Your task to perform on an android device: What's a good restaurant in San Jose? Image 0: 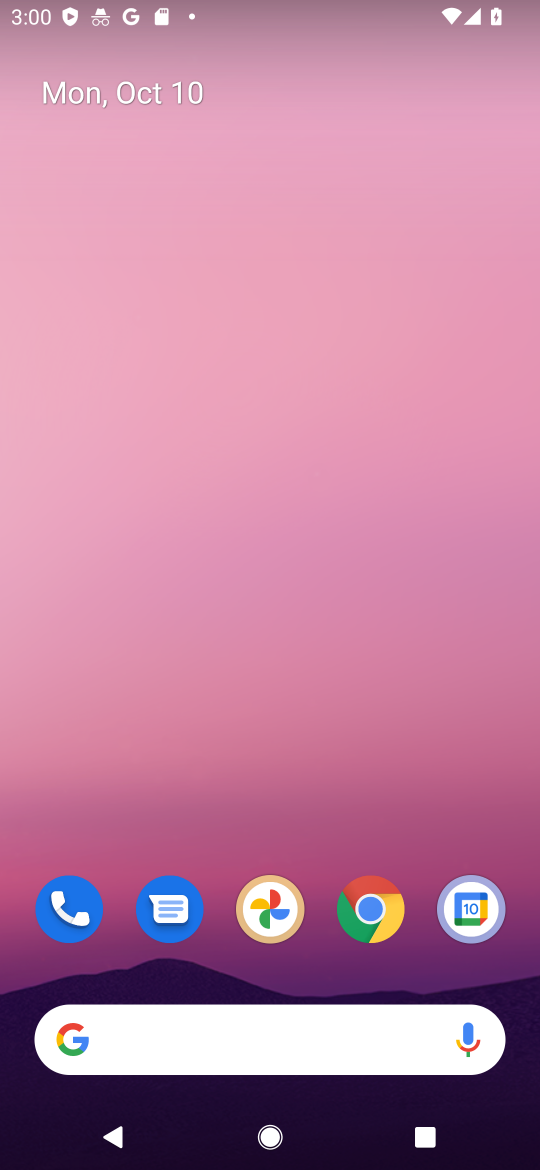
Step 0: click (369, 911)
Your task to perform on an android device: What's a good restaurant in San Jose? Image 1: 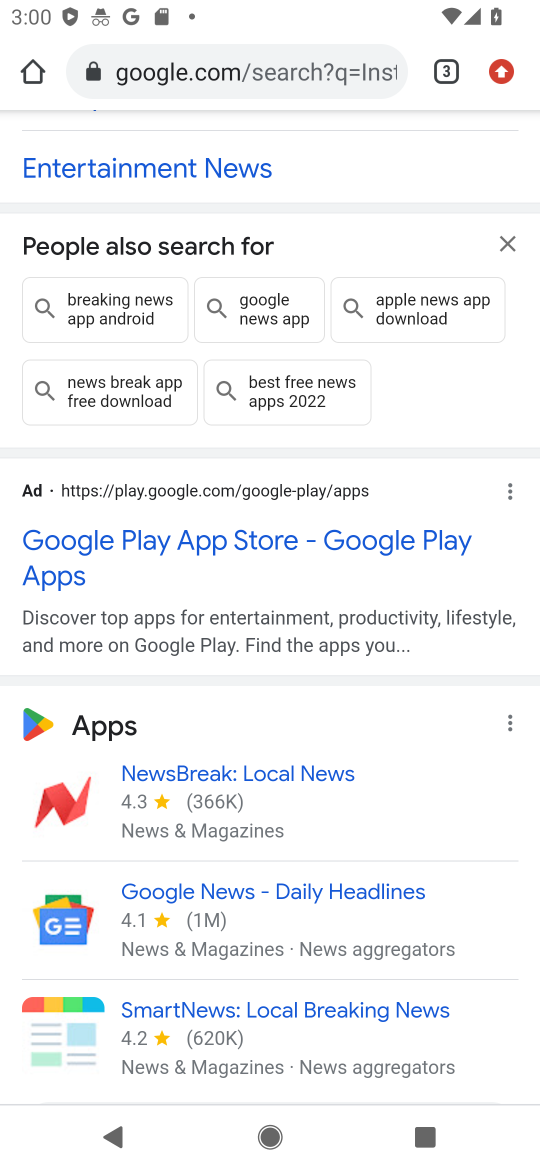
Step 1: click (284, 48)
Your task to perform on an android device: What's a good restaurant in San Jose? Image 2: 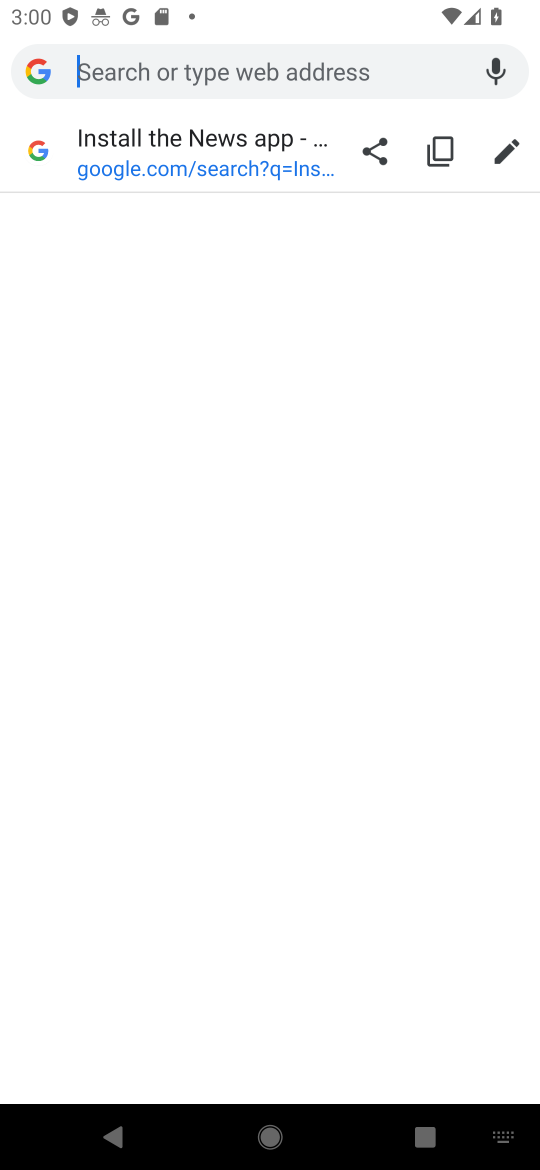
Step 2: type "good restaurant in San Jose?"
Your task to perform on an android device: What's a good restaurant in San Jose? Image 3: 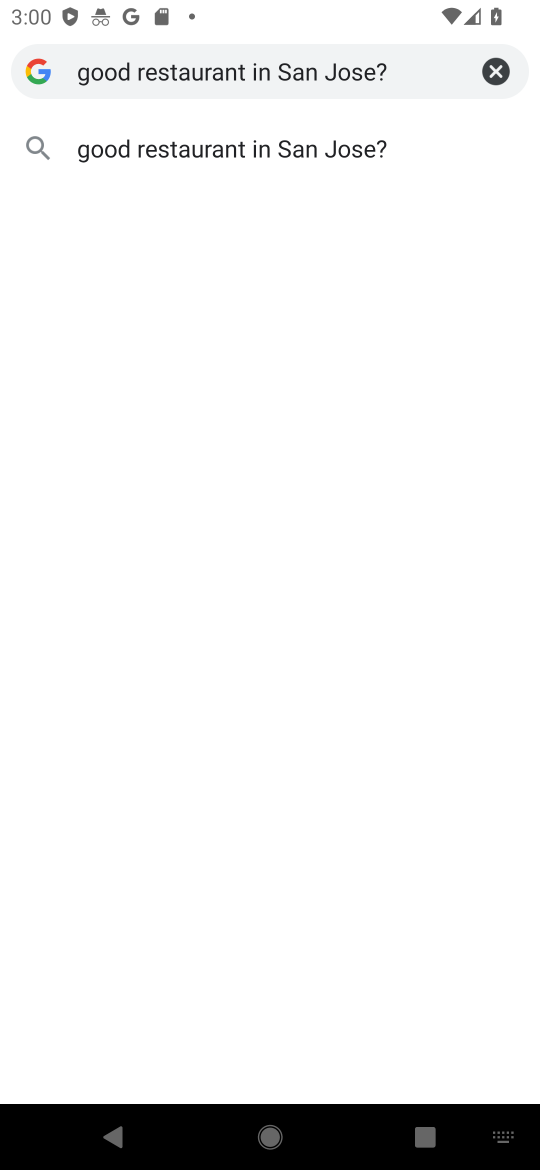
Step 3: click (200, 150)
Your task to perform on an android device: What's a good restaurant in San Jose? Image 4: 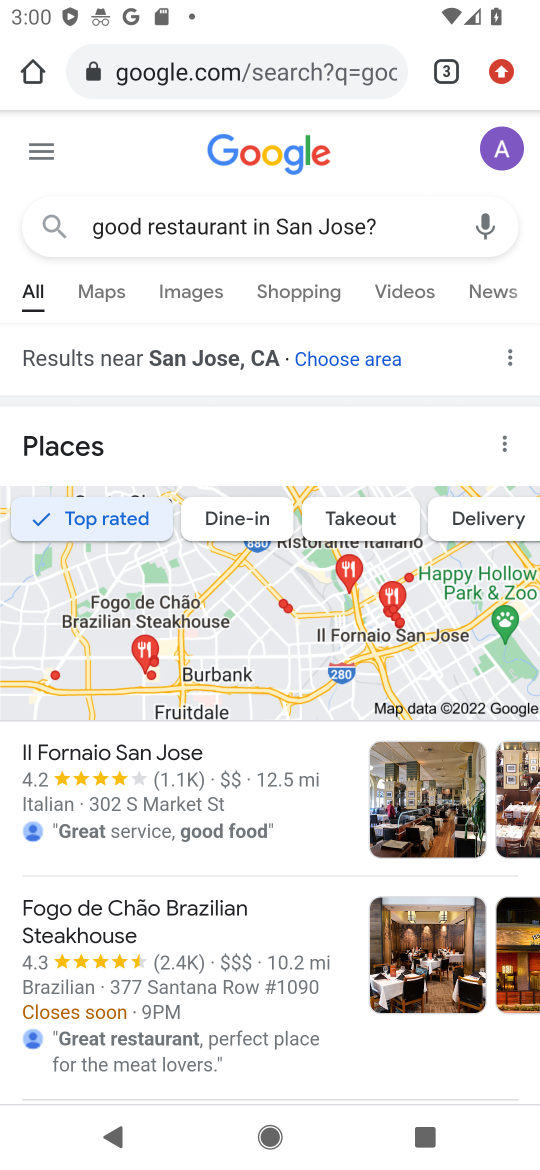
Step 4: drag from (209, 420) to (234, 95)
Your task to perform on an android device: What's a good restaurant in San Jose? Image 5: 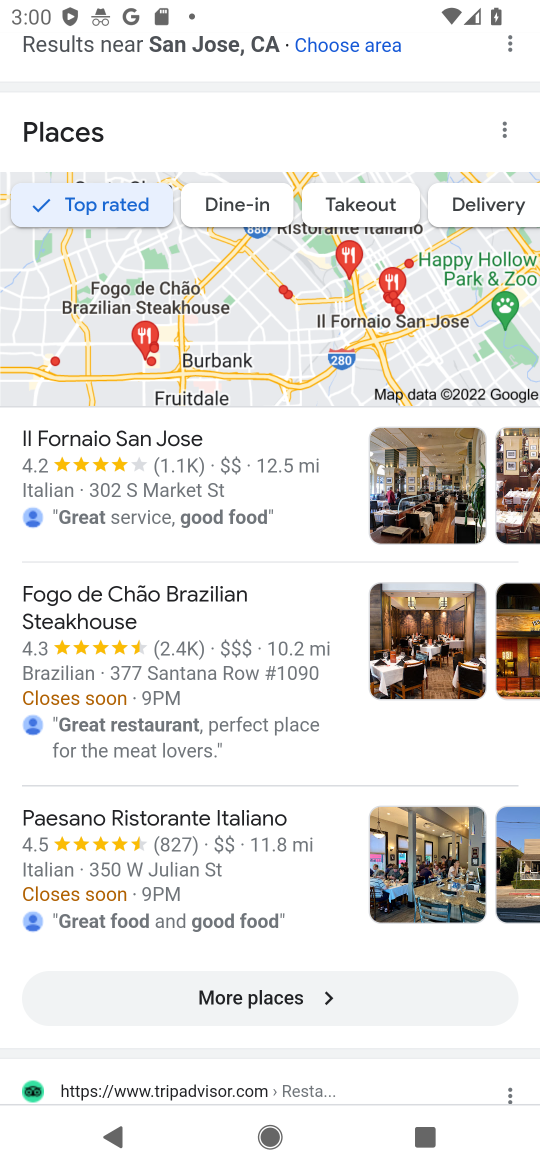
Step 5: drag from (207, 881) to (221, 297)
Your task to perform on an android device: What's a good restaurant in San Jose? Image 6: 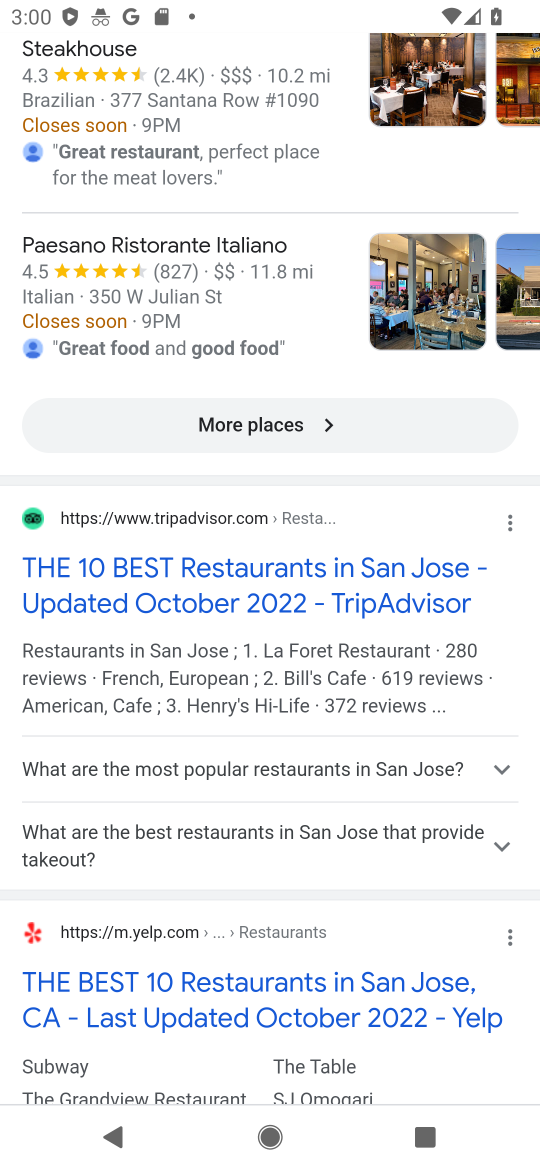
Step 6: click (176, 577)
Your task to perform on an android device: What's a good restaurant in San Jose? Image 7: 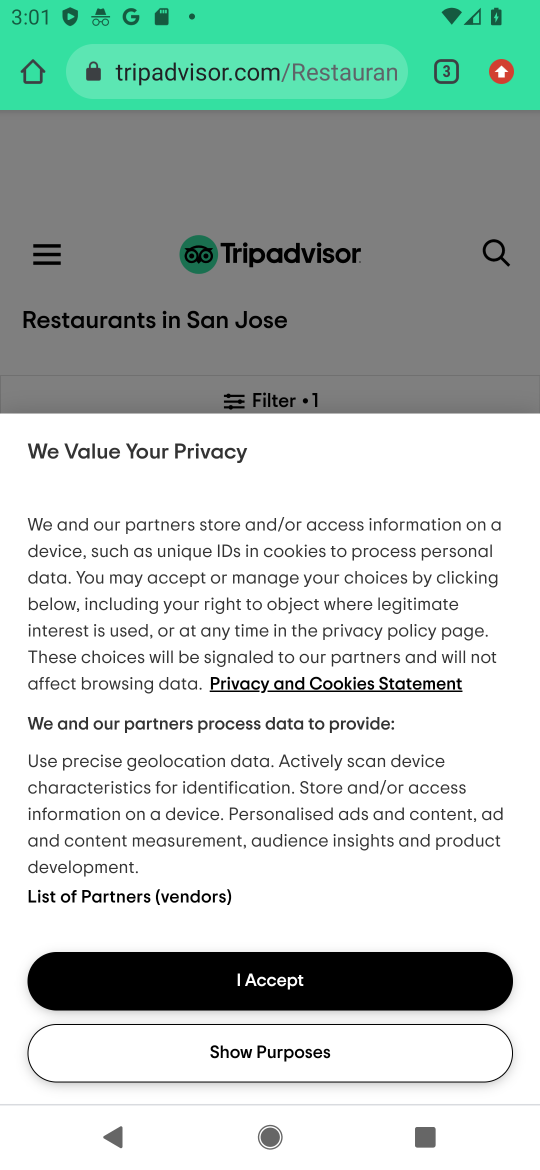
Step 7: click (253, 971)
Your task to perform on an android device: What's a good restaurant in San Jose? Image 8: 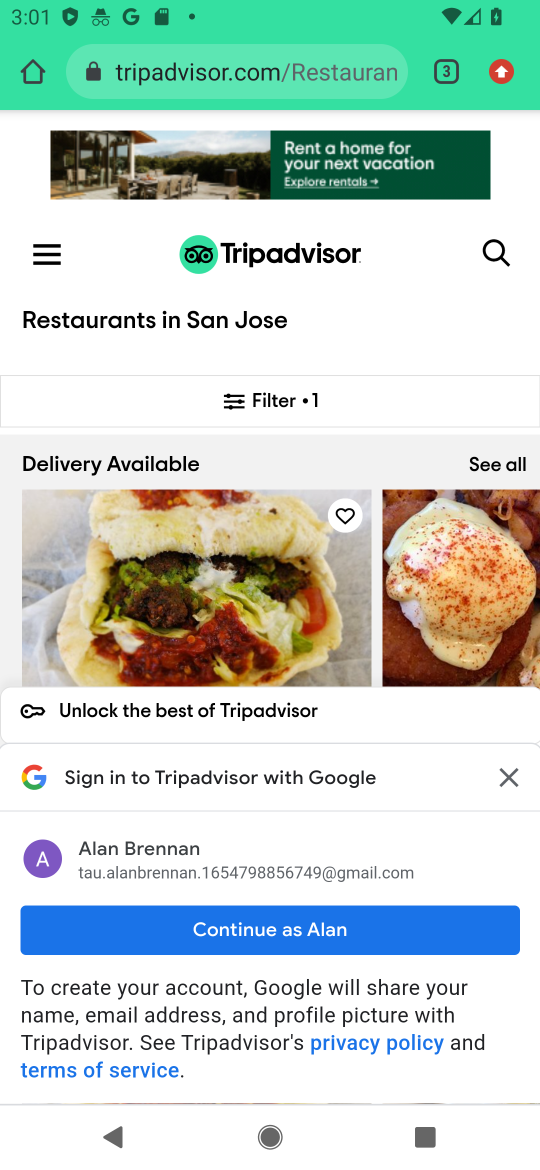
Step 8: click (250, 933)
Your task to perform on an android device: What's a good restaurant in San Jose? Image 9: 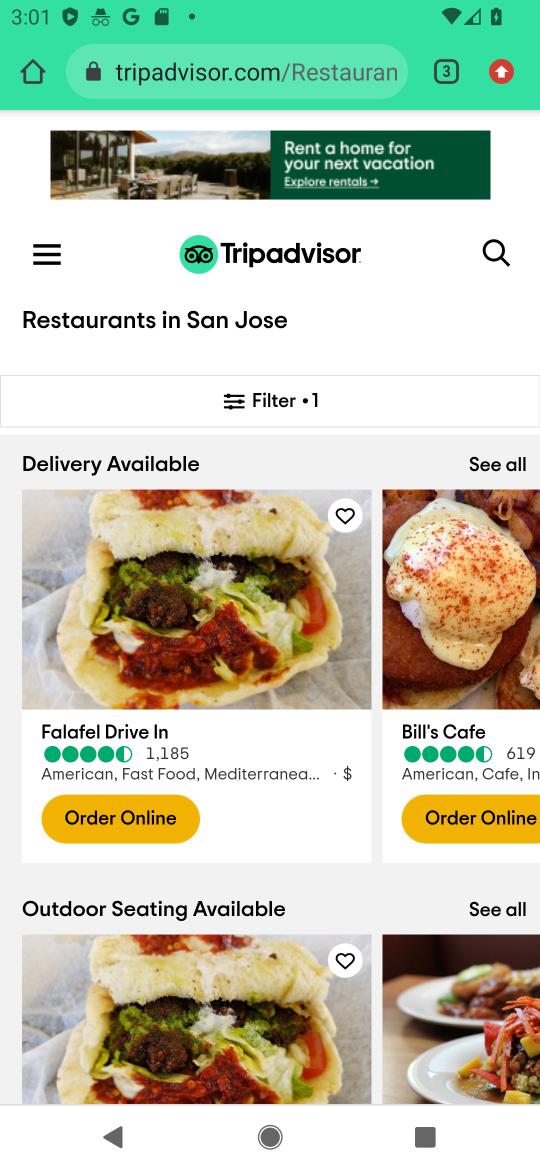
Step 9: task complete